Your task to perform on an android device: Open accessibility settings Image 0: 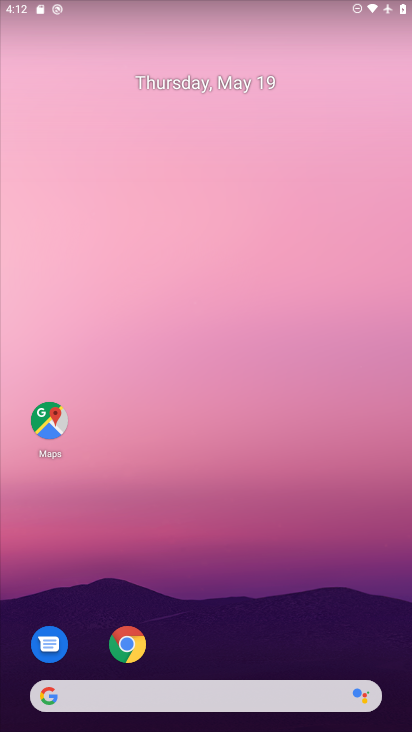
Step 0: drag from (252, 540) to (238, 24)
Your task to perform on an android device: Open accessibility settings Image 1: 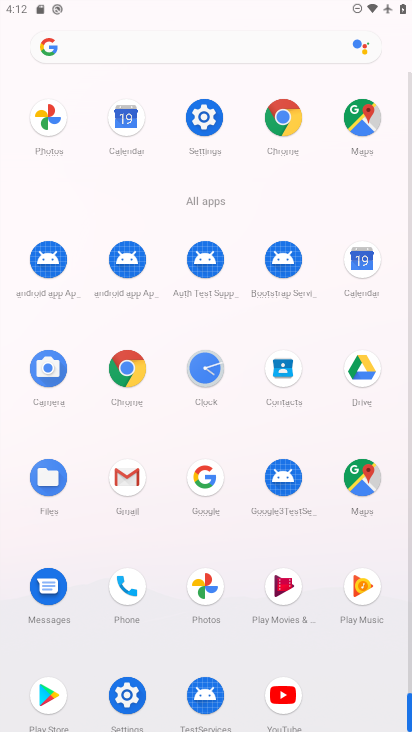
Step 1: click (122, 696)
Your task to perform on an android device: Open accessibility settings Image 2: 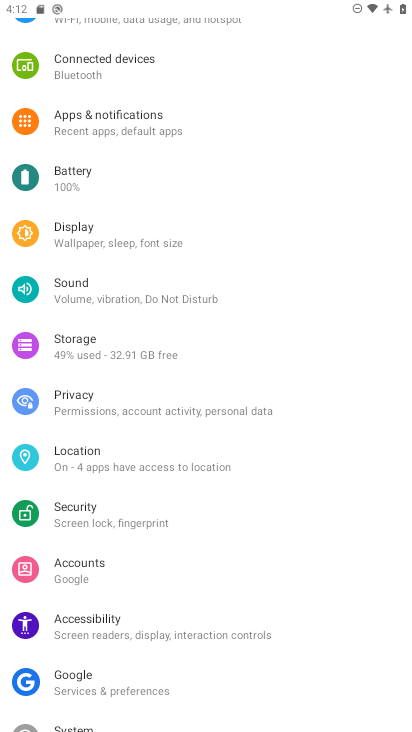
Step 2: click (107, 623)
Your task to perform on an android device: Open accessibility settings Image 3: 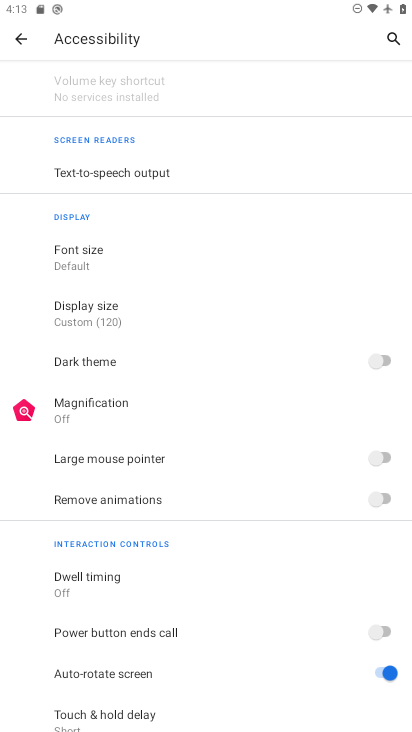
Step 3: task complete